Your task to perform on an android device: Open maps Image 0: 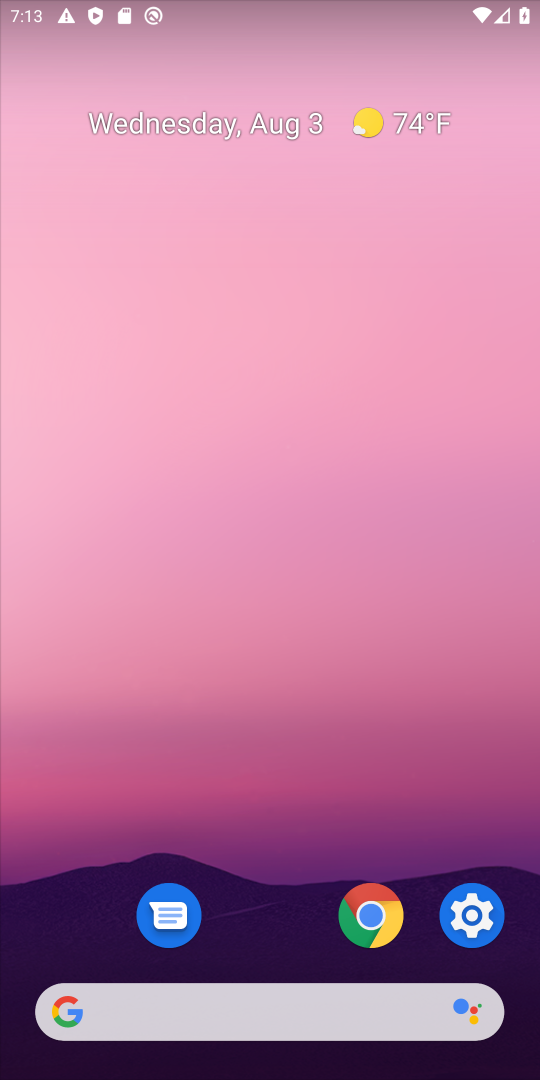
Step 0: press home button
Your task to perform on an android device: Open maps Image 1: 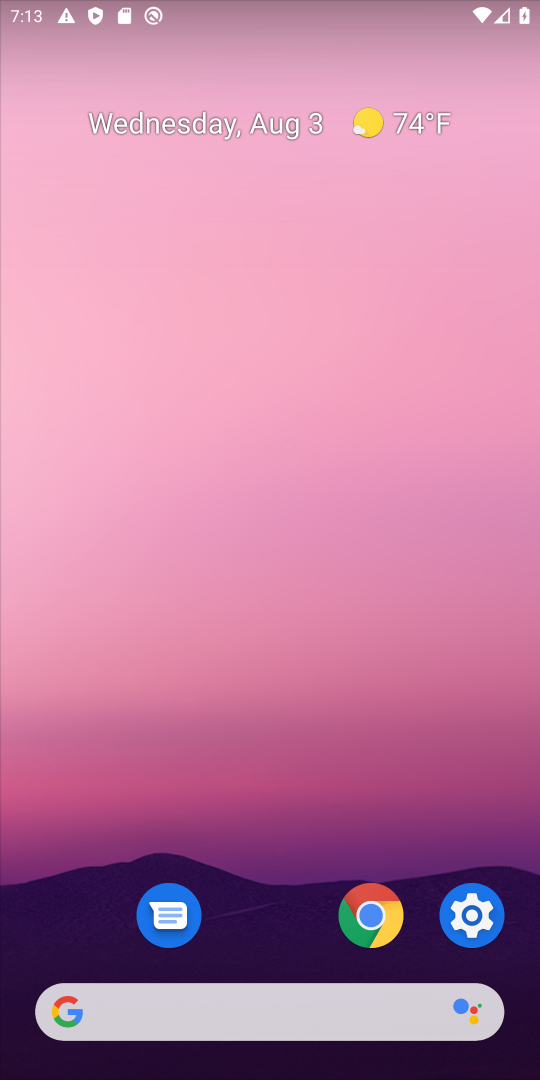
Step 1: drag from (343, 1025) to (243, 348)
Your task to perform on an android device: Open maps Image 2: 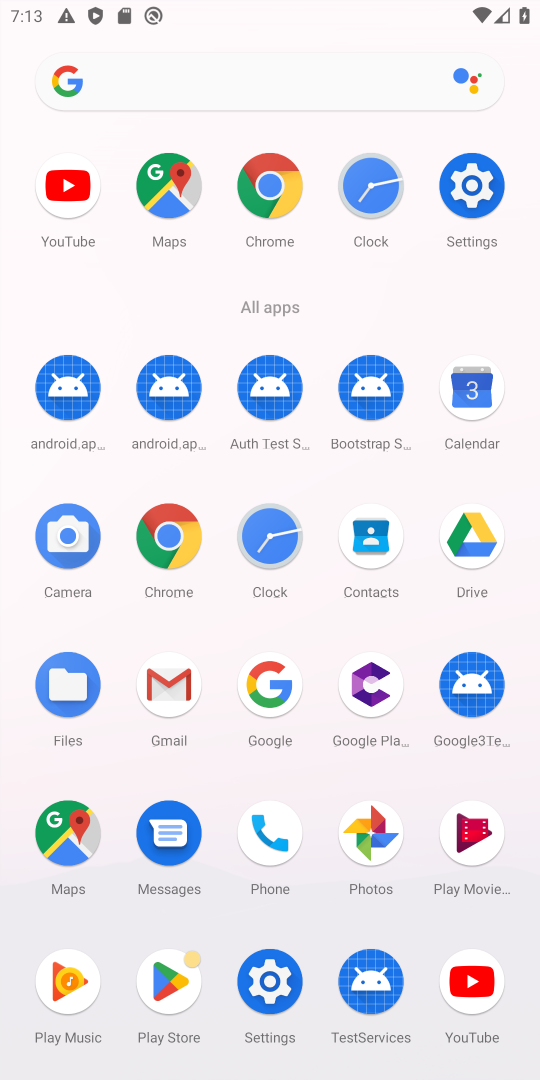
Step 2: click (179, 207)
Your task to perform on an android device: Open maps Image 3: 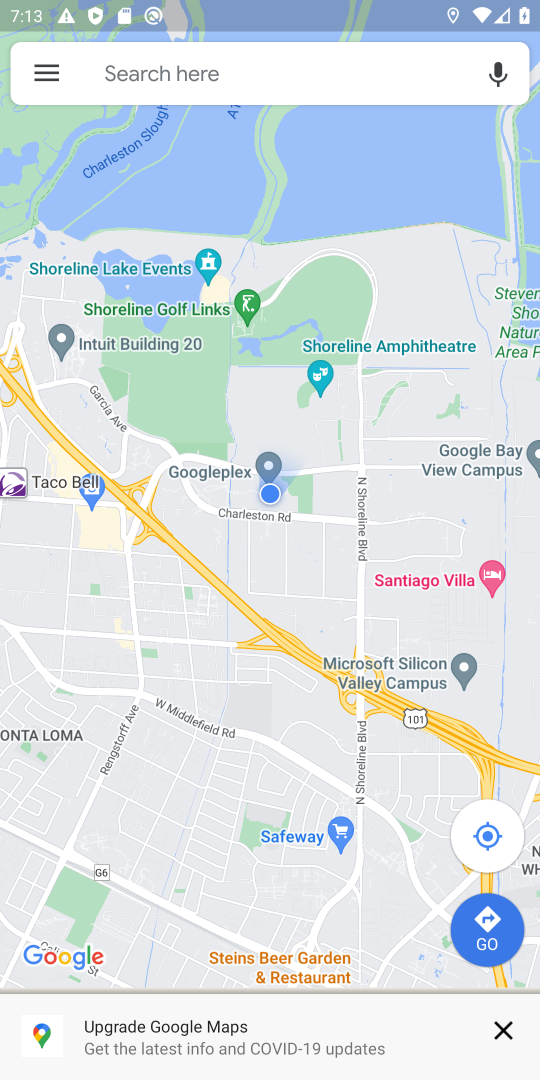
Step 3: click (482, 817)
Your task to perform on an android device: Open maps Image 4: 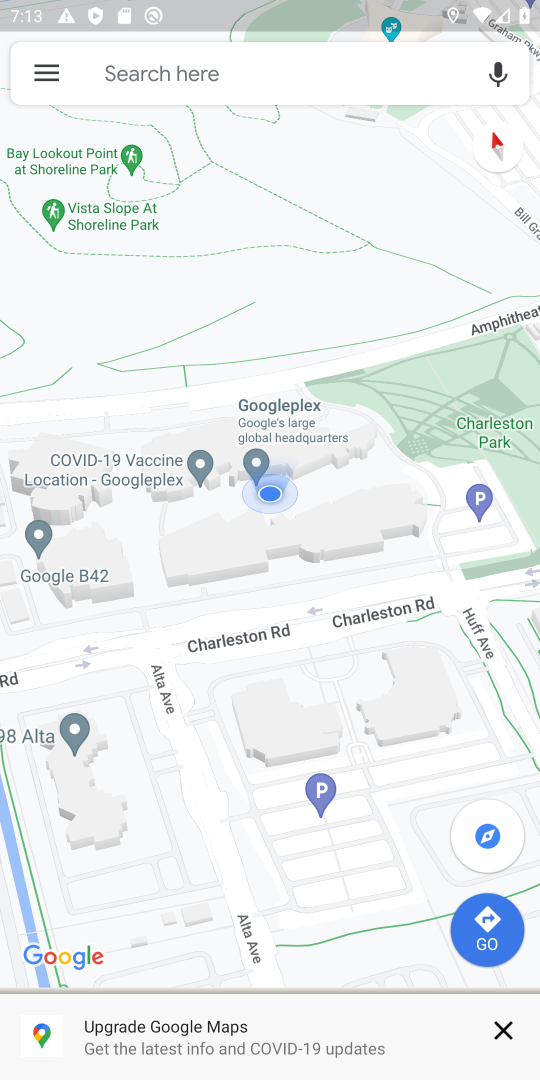
Step 4: press home button
Your task to perform on an android device: Open maps Image 5: 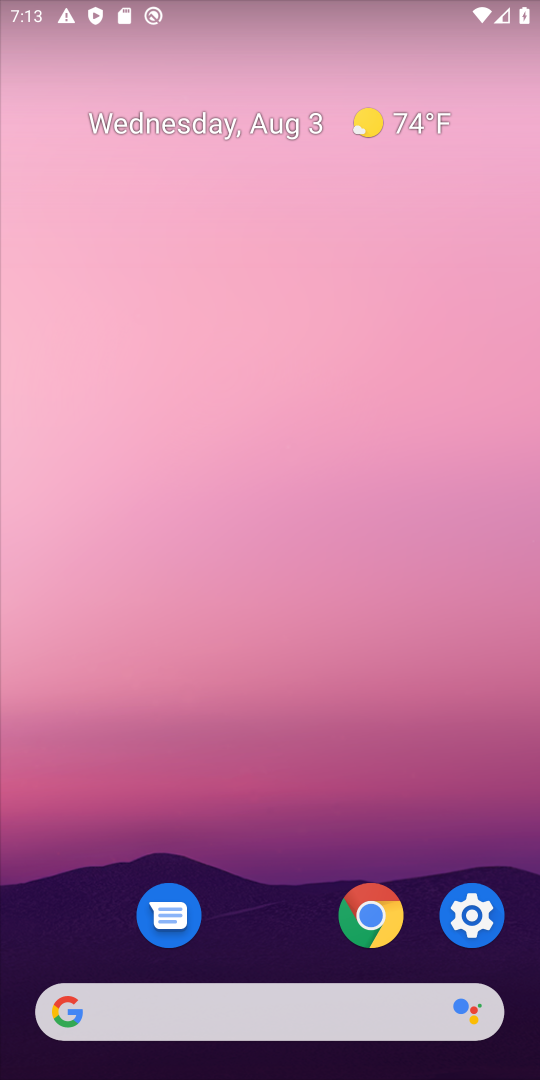
Step 5: drag from (287, 1050) to (172, 429)
Your task to perform on an android device: Open maps Image 6: 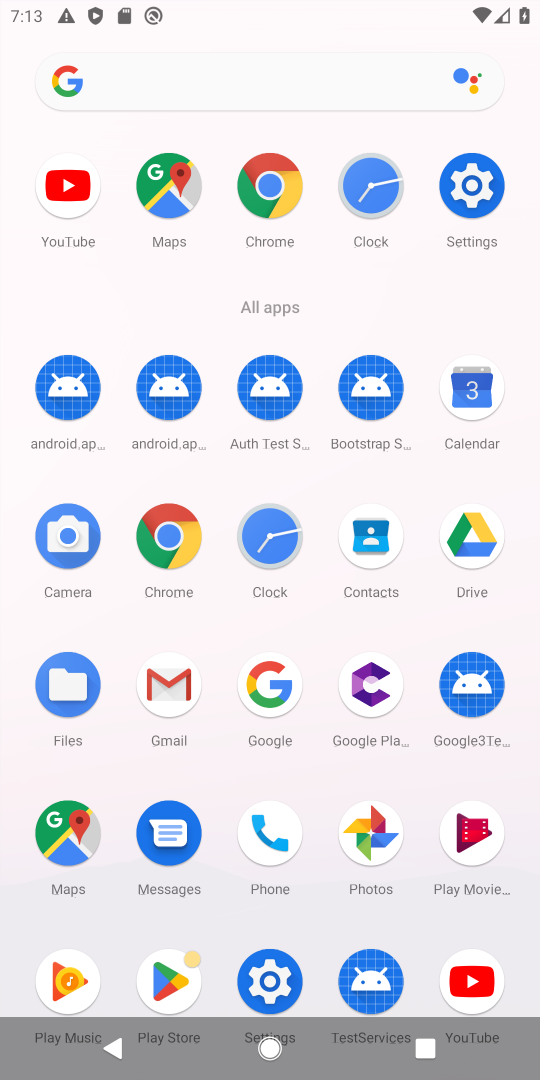
Step 6: click (172, 178)
Your task to perform on an android device: Open maps Image 7: 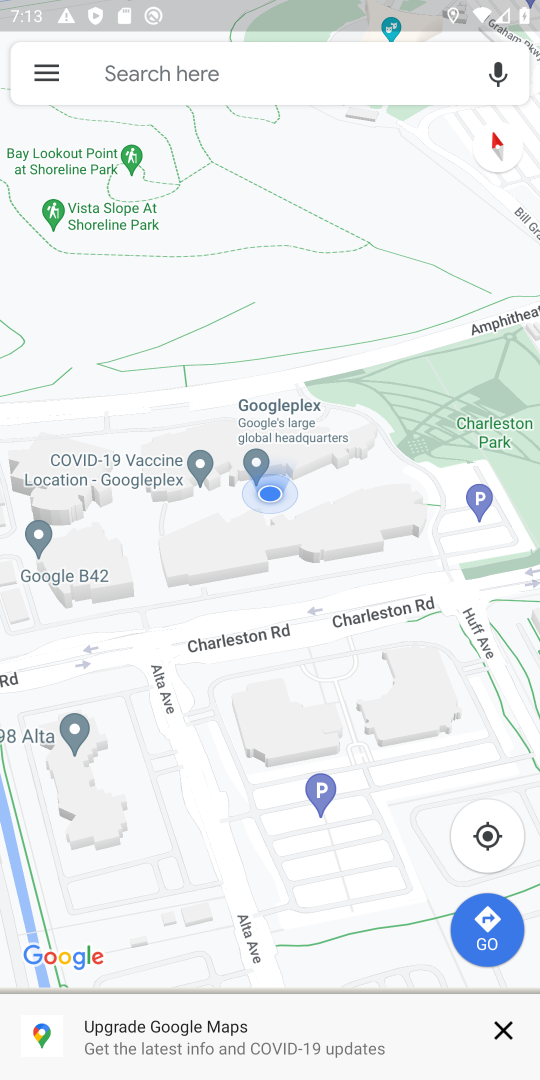
Step 7: task complete